Your task to perform on an android device: show emergency info Image 0: 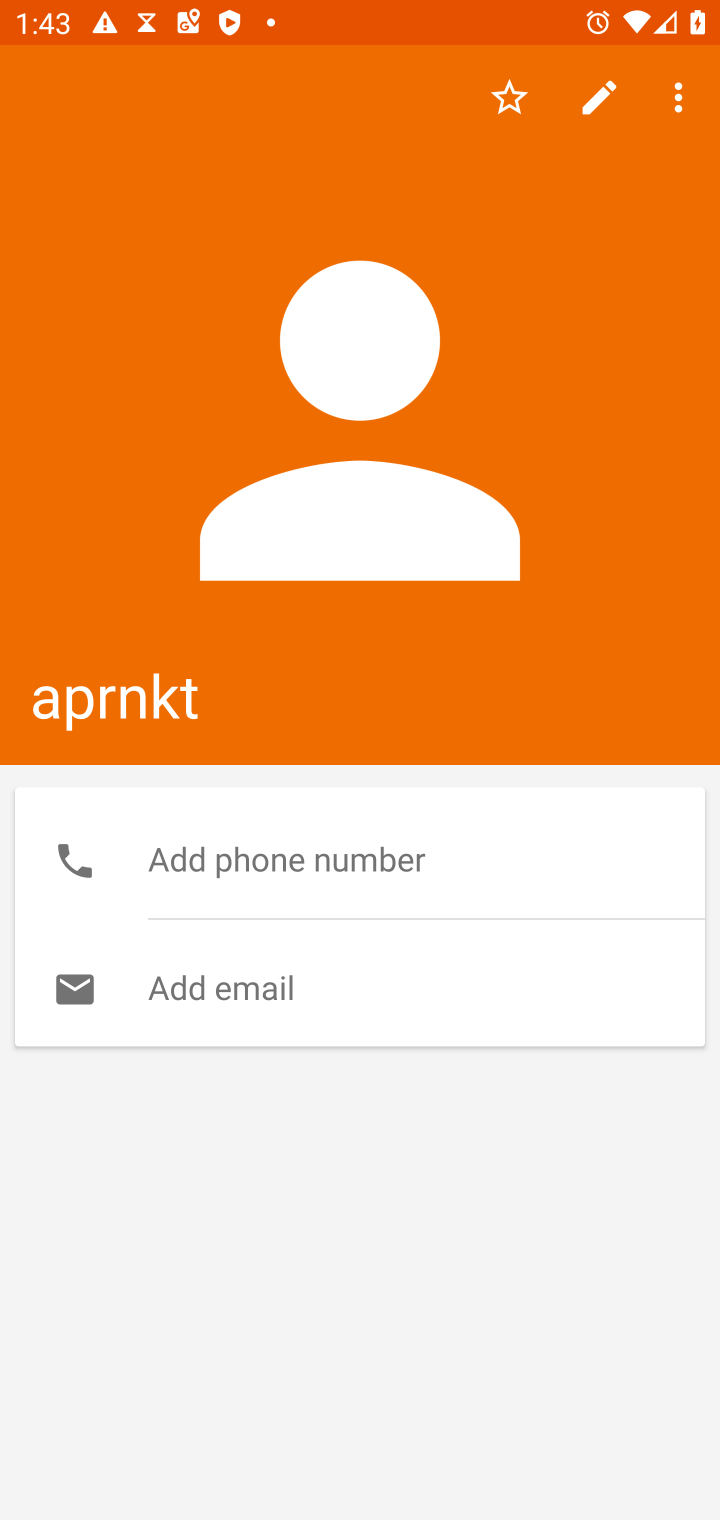
Step 0: press home button
Your task to perform on an android device: show emergency info Image 1: 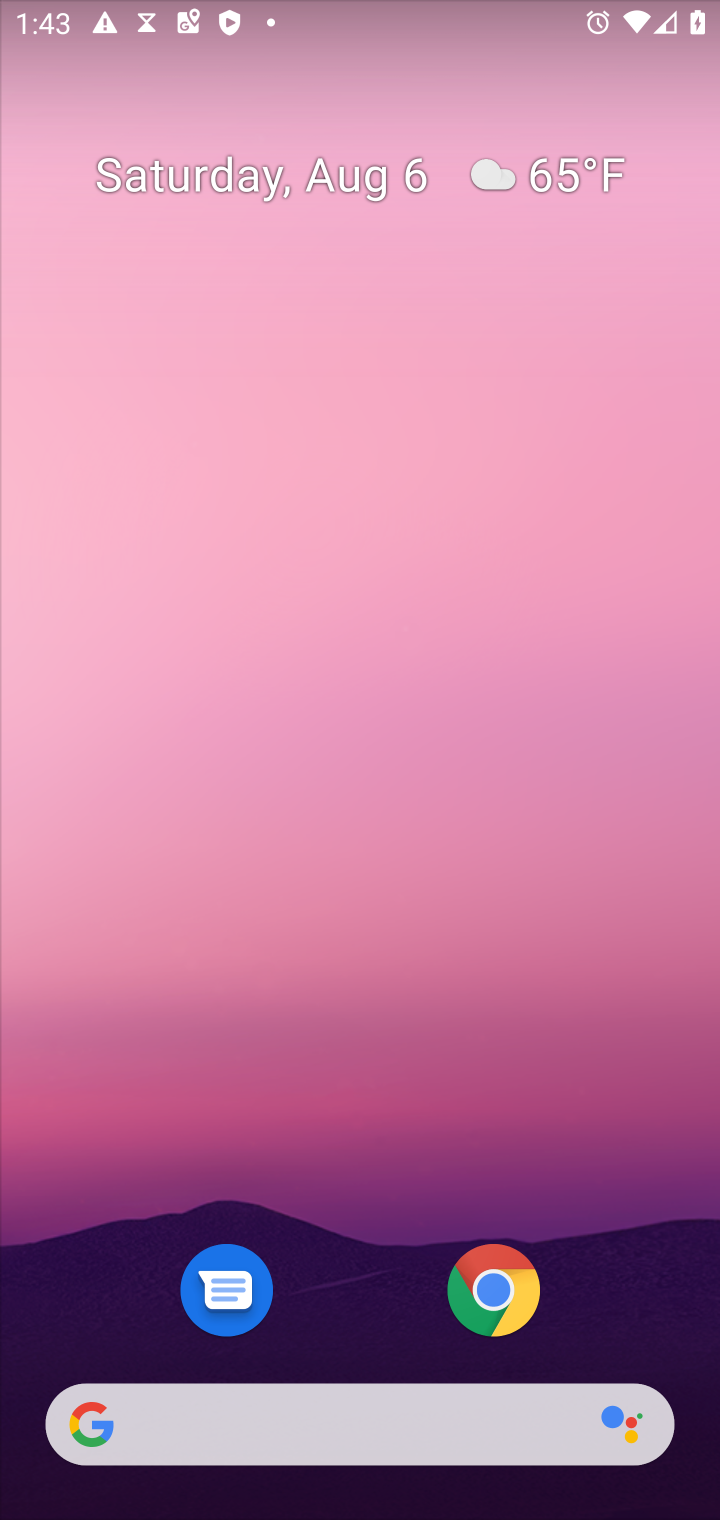
Step 1: drag from (377, 1282) to (383, 95)
Your task to perform on an android device: show emergency info Image 2: 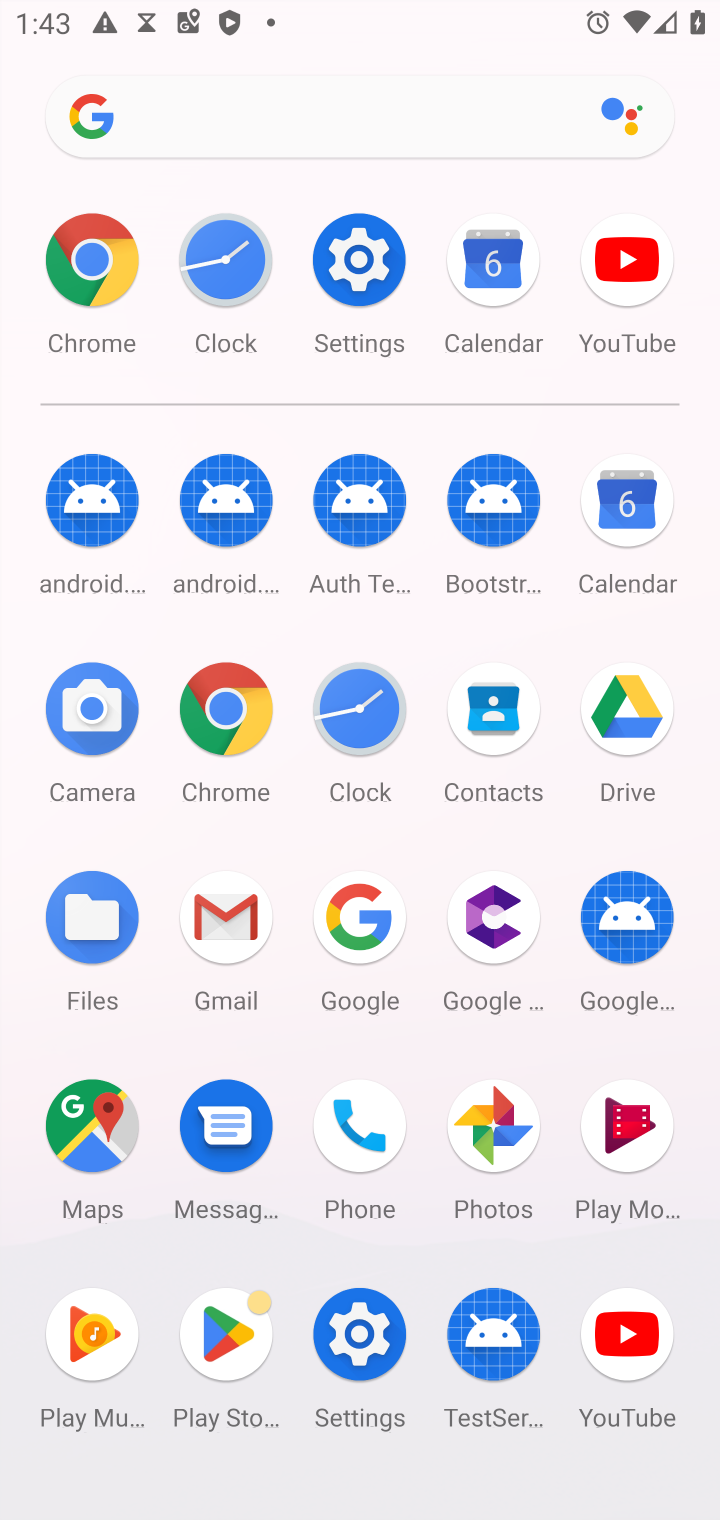
Step 2: click (358, 246)
Your task to perform on an android device: show emergency info Image 3: 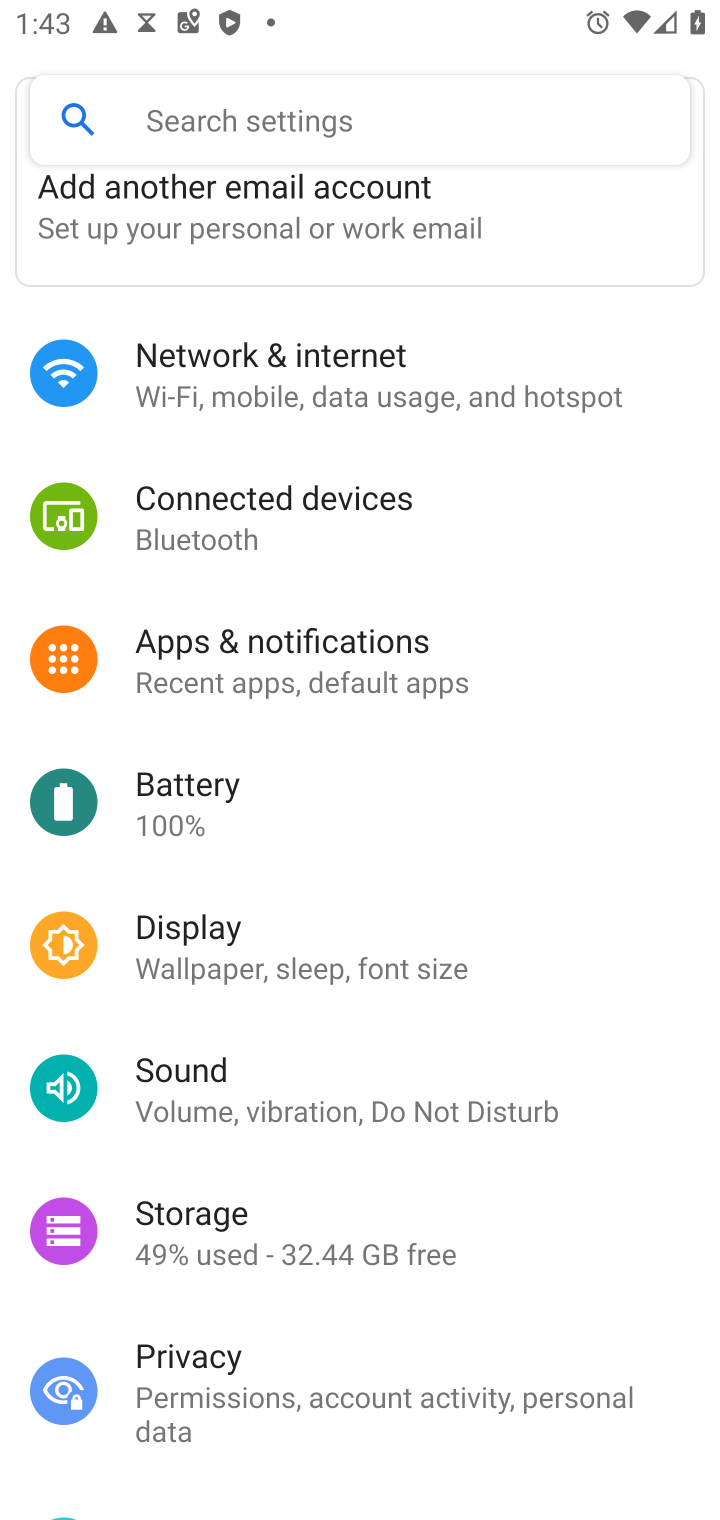
Step 3: drag from (331, 1448) to (262, 461)
Your task to perform on an android device: show emergency info Image 4: 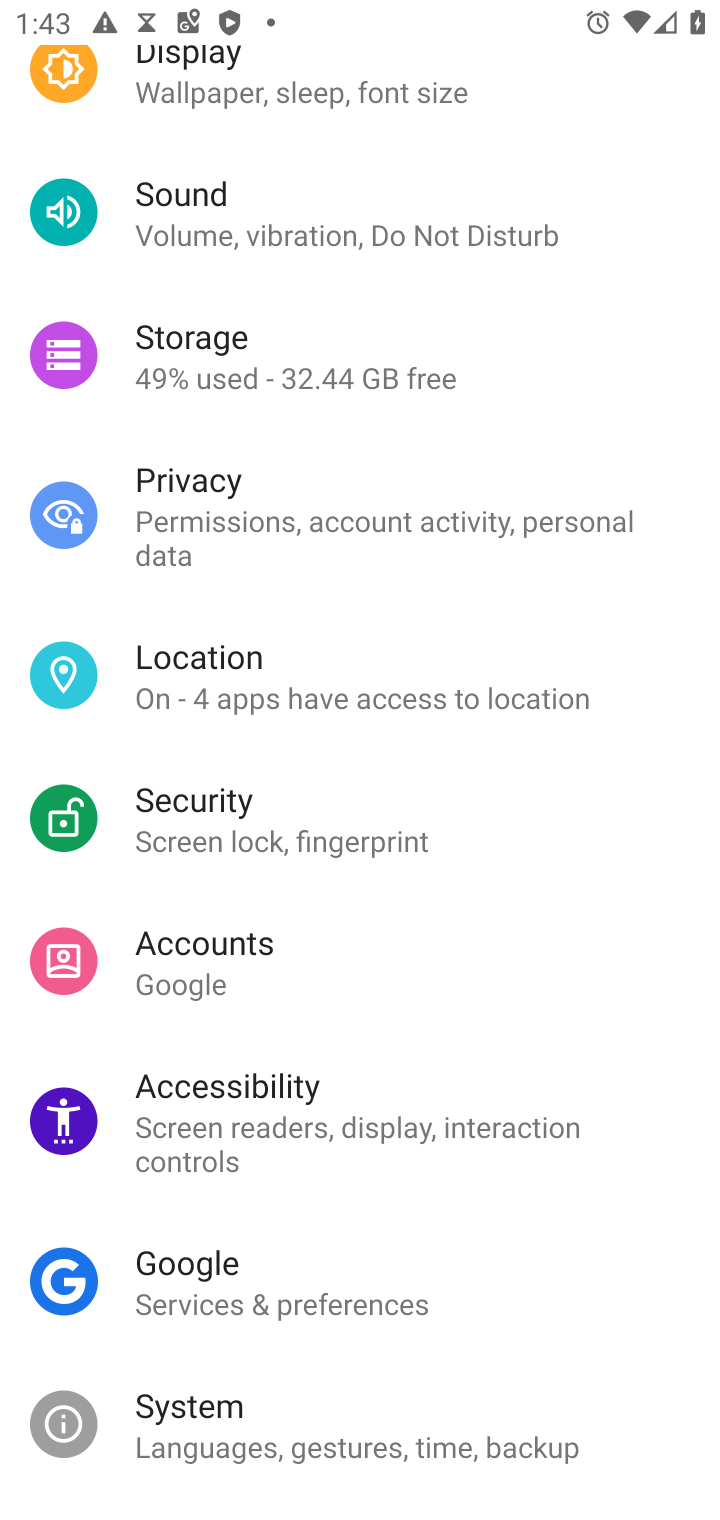
Step 4: drag from (300, 1384) to (352, 162)
Your task to perform on an android device: show emergency info Image 5: 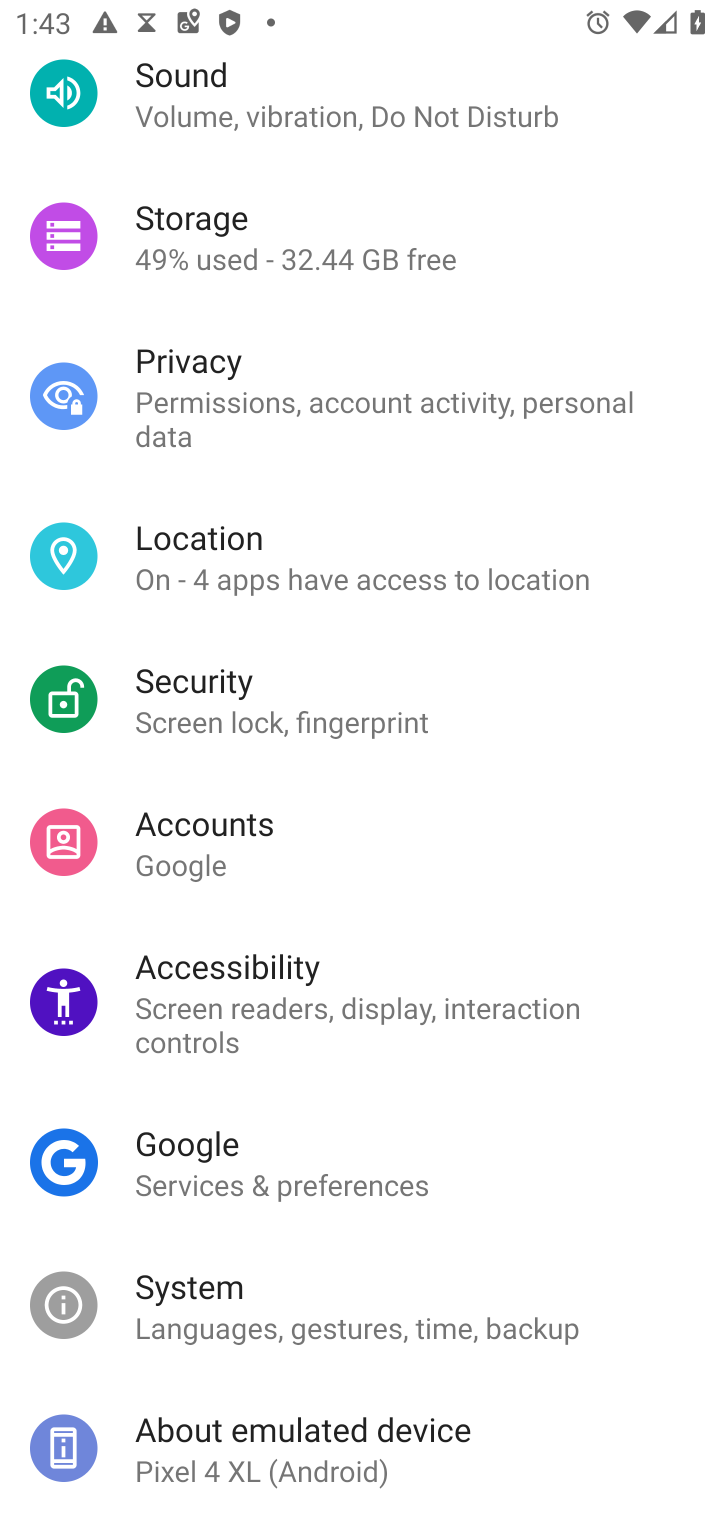
Step 5: click (440, 1467)
Your task to perform on an android device: show emergency info Image 6: 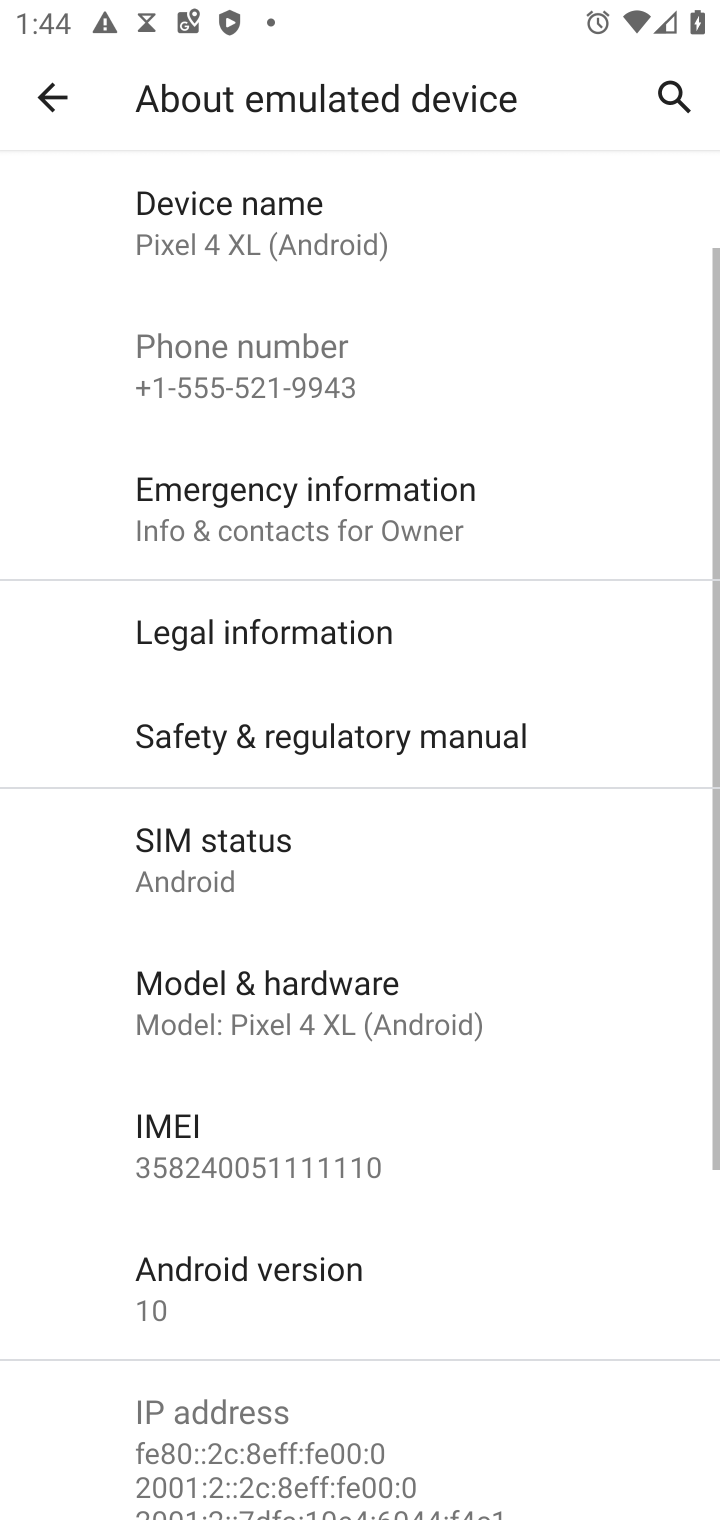
Step 6: click (473, 527)
Your task to perform on an android device: show emergency info Image 7: 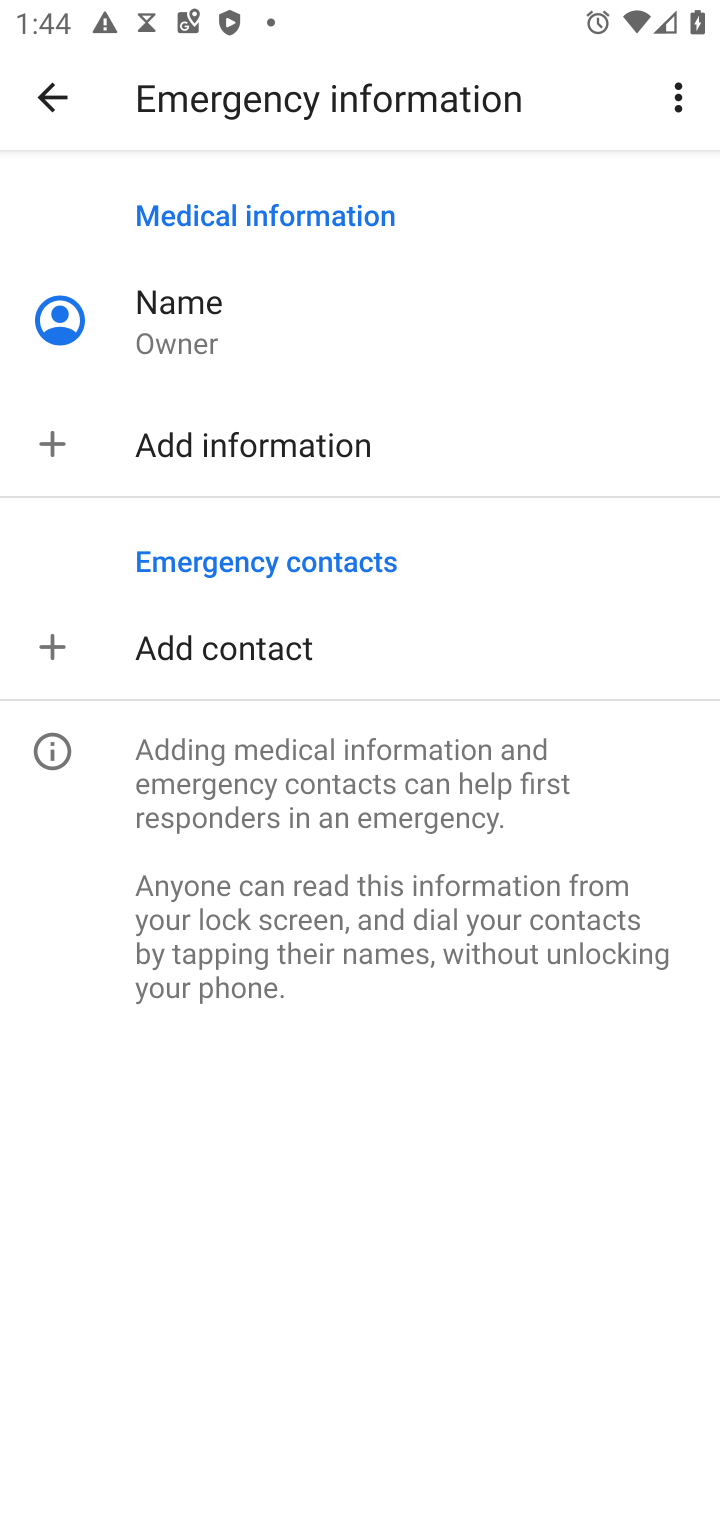
Step 7: task complete